Your task to perform on an android device: turn on javascript in the chrome app Image 0: 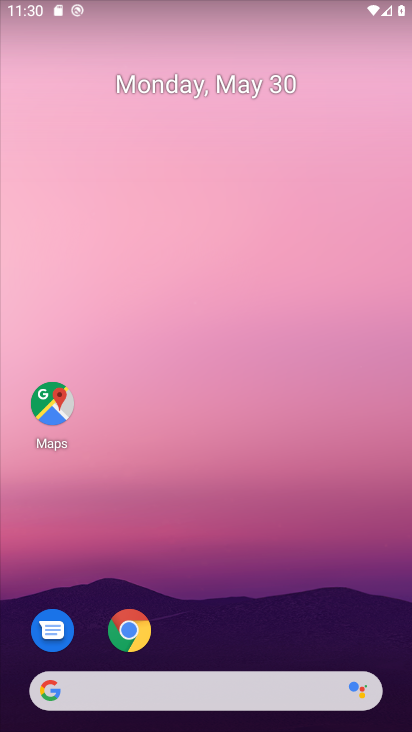
Step 0: click (133, 631)
Your task to perform on an android device: turn on javascript in the chrome app Image 1: 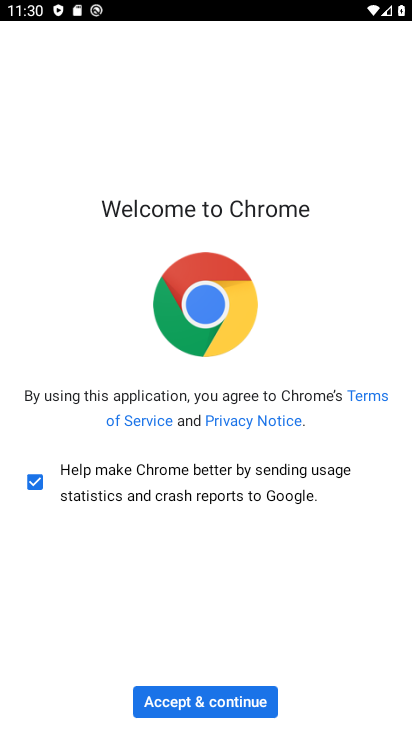
Step 1: click (199, 702)
Your task to perform on an android device: turn on javascript in the chrome app Image 2: 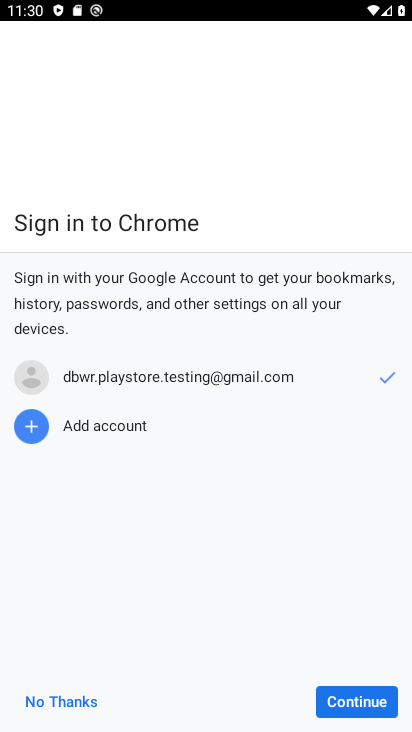
Step 2: click (353, 709)
Your task to perform on an android device: turn on javascript in the chrome app Image 3: 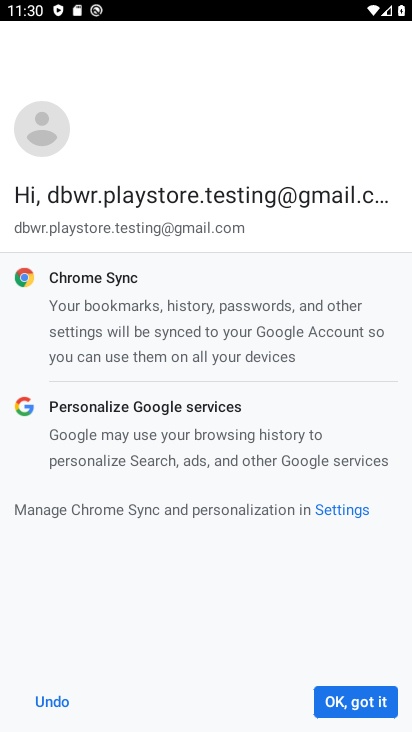
Step 3: click (360, 698)
Your task to perform on an android device: turn on javascript in the chrome app Image 4: 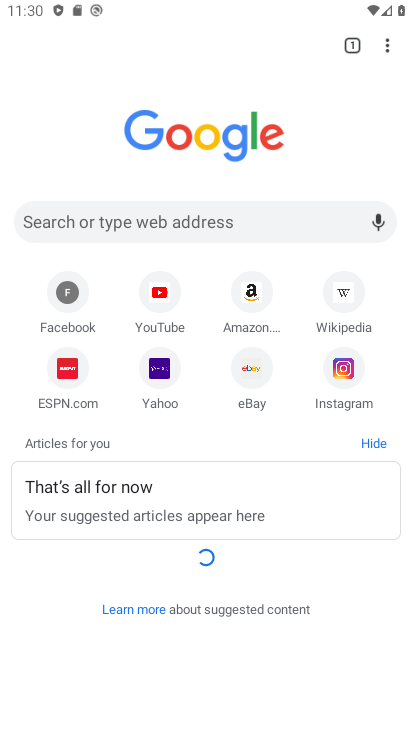
Step 4: click (387, 53)
Your task to perform on an android device: turn on javascript in the chrome app Image 5: 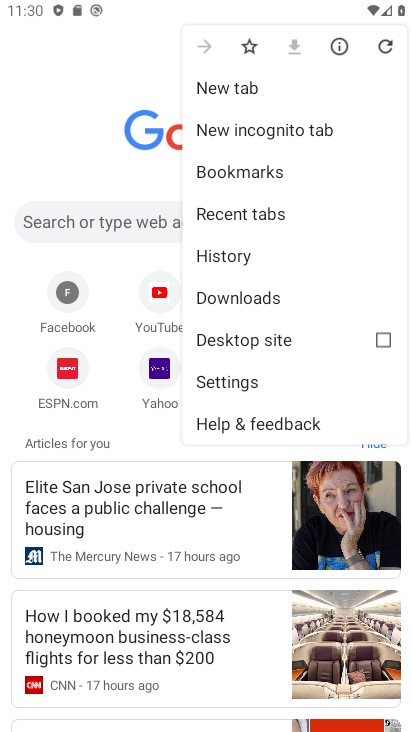
Step 5: click (250, 379)
Your task to perform on an android device: turn on javascript in the chrome app Image 6: 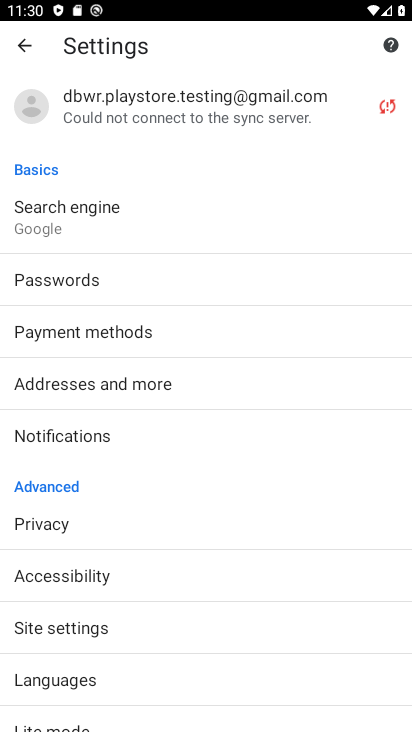
Step 6: click (89, 621)
Your task to perform on an android device: turn on javascript in the chrome app Image 7: 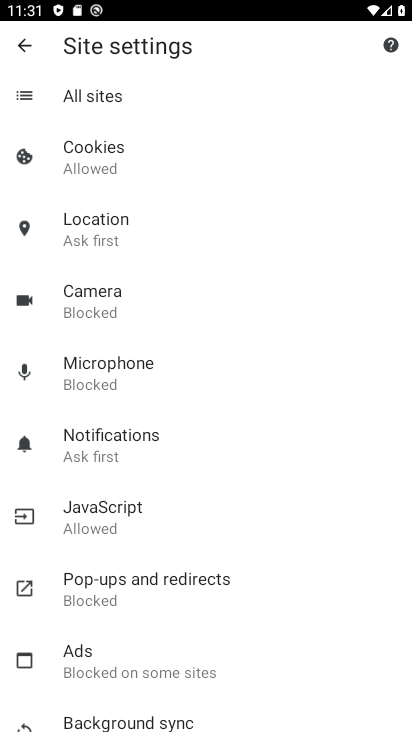
Step 7: click (118, 512)
Your task to perform on an android device: turn on javascript in the chrome app Image 8: 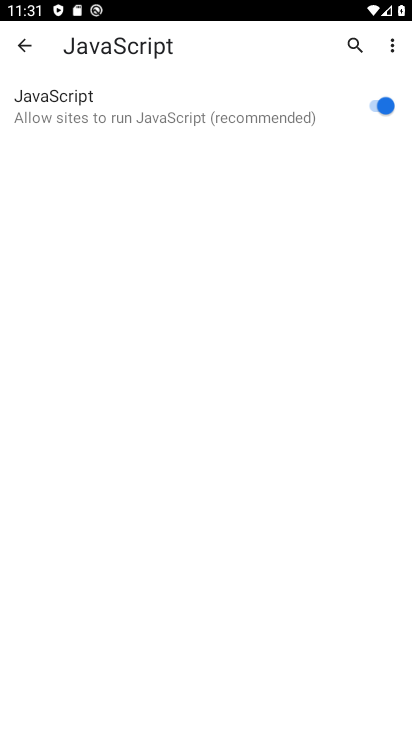
Step 8: task complete